Your task to perform on an android device: toggle data saver in the chrome app Image 0: 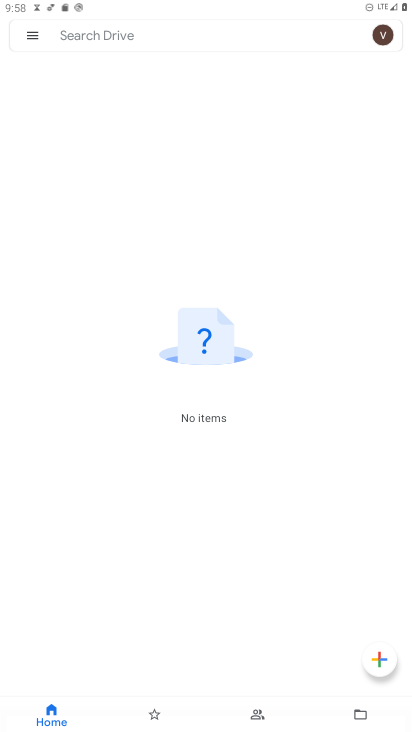
Step 0: press home button
Your task to perform on an android device: toggle data saver in the chrome app Image 1: 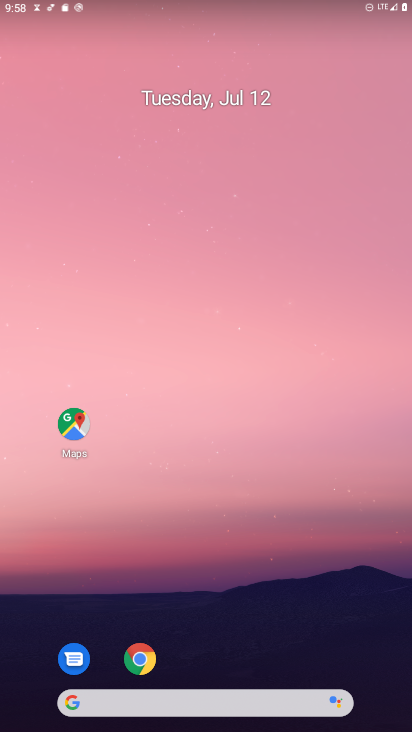
Step 1: click (141, 661)
Your task to perform on an android device: toggle data saver in the chrome app Image 2: 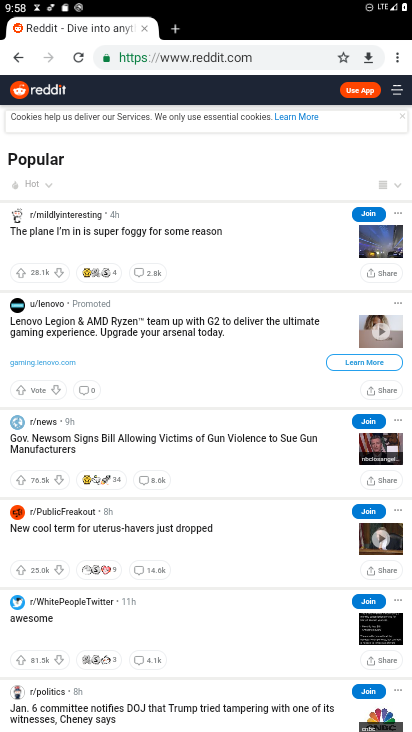
Step 2: click (398, 60)
Your task to perform on an android device: toggle data saver in the chrome app Image 3: 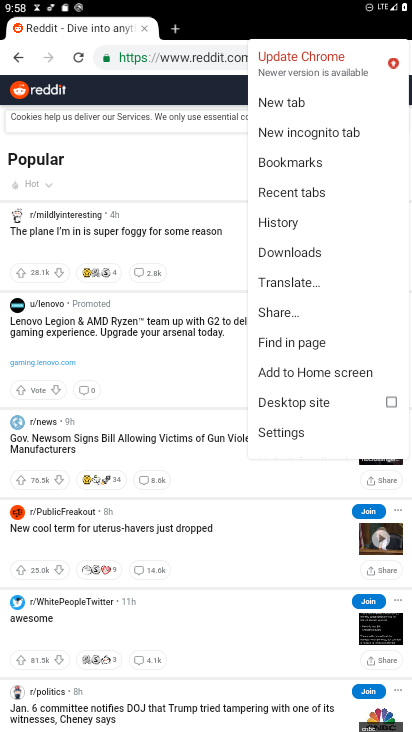
Step 3: click (286, 432)
Your task to perform on an android device: toggle data saver in the chrome app Image 4: 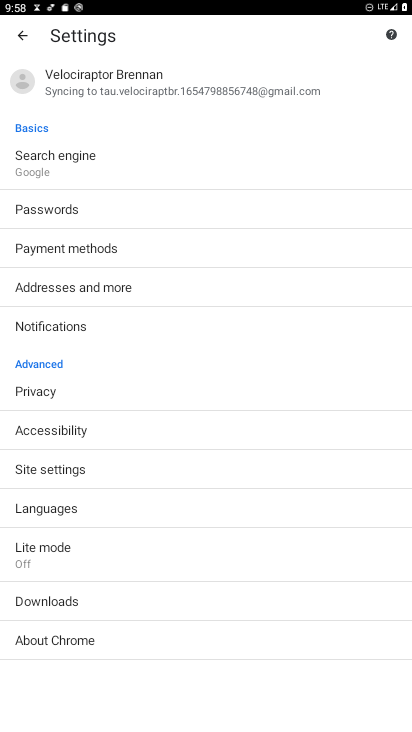
Step 4: click (57, 552)
Your task to perform on an android device: toggle data saver in the chrome app Image 5: 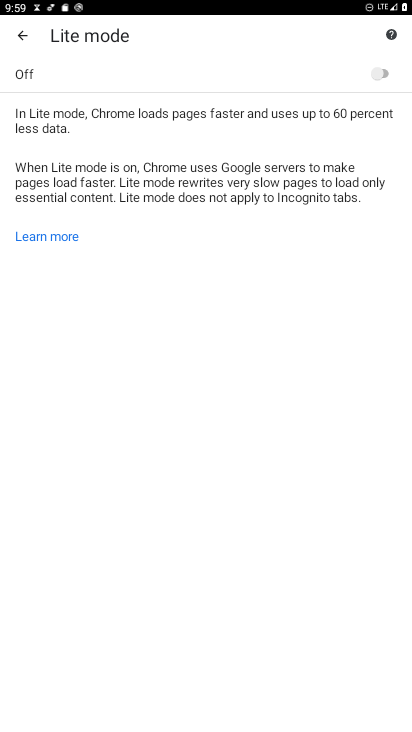
Step 5: click (378, 78)
Your task to perform on an android device: toggle data saver in the chrome app Image 6: 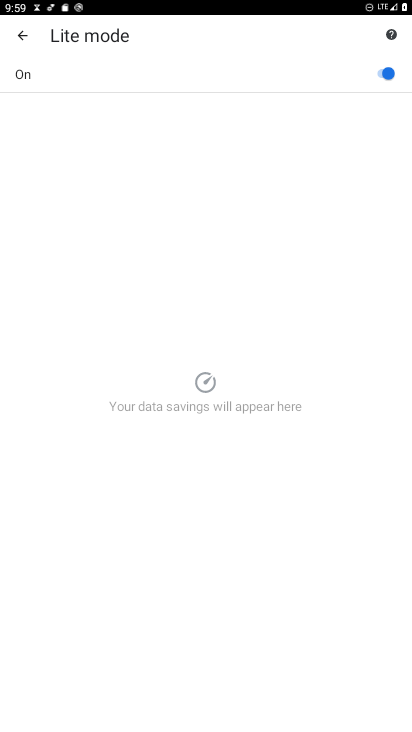
Step 6: task complete